Your task to perform on an android device: turn smart compose on in the gmail app Image 0: 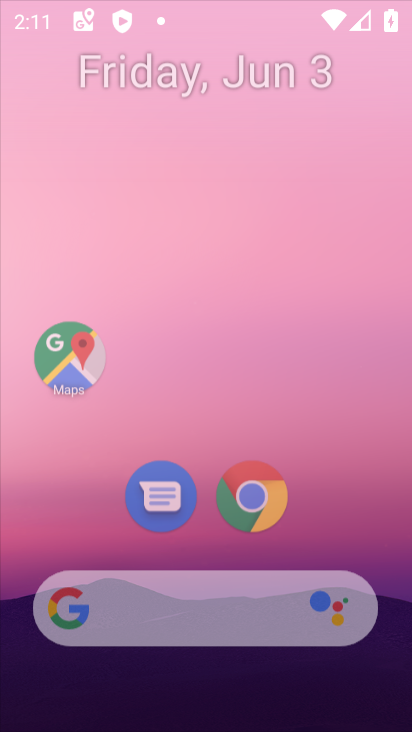
Step 0: click (142, 25)
Your task to perform on an android device: turn smart compose on in the gmail app Image 1: 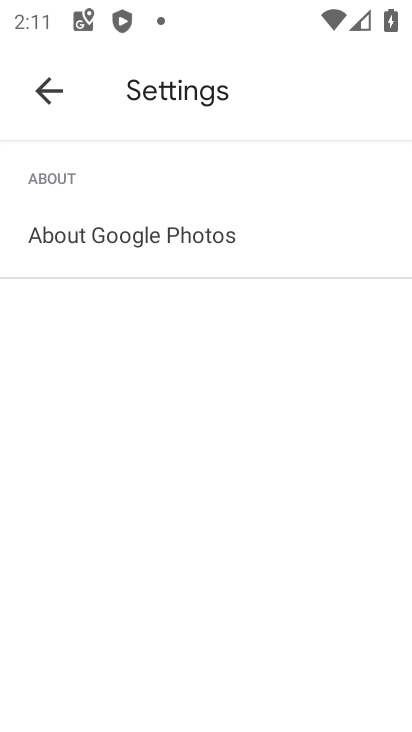
Step 1: click (33, 84)
Your task to perform on an android device: turn smart compose on in the gmail app Image 2: 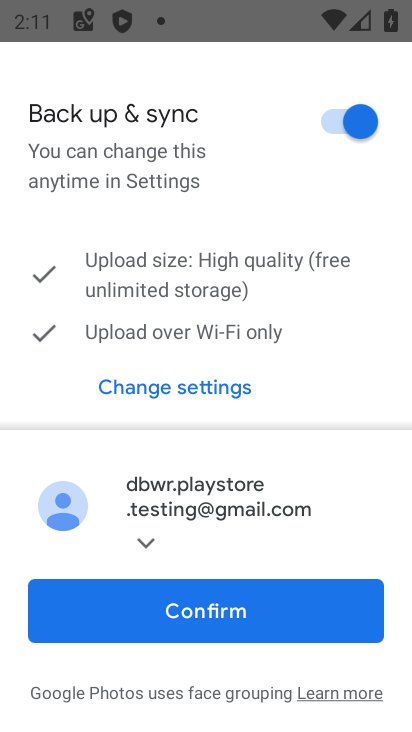
Step 2: press home button
Your task to perform on an android device: turn smart compose on in the gmail app Image 3: 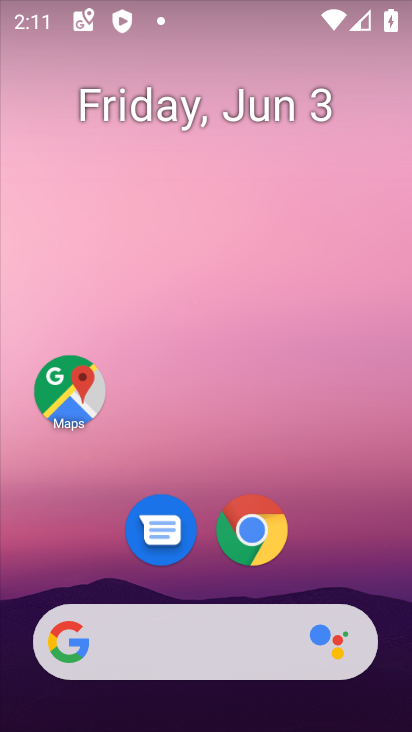
Step 3: drag from (331, 521) to (270, 166)
Your task to perform on an android device: turn smart compose on in the gmail app Image 4: 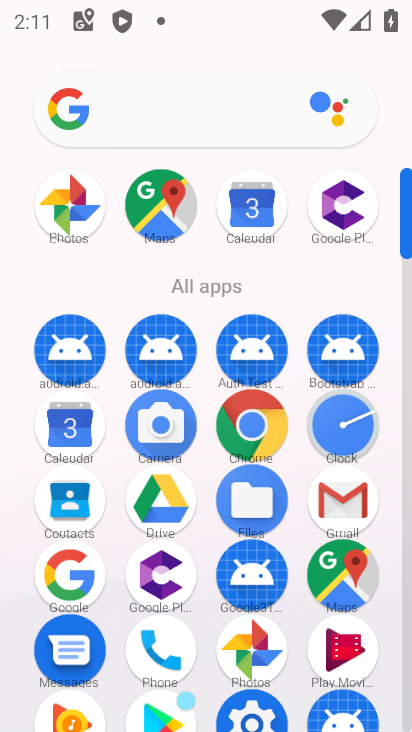
Step 4: drag from (204, 599) to (198, 354)
Your task to perform on an android device: turn smart compose on in the gmail app Image 5: 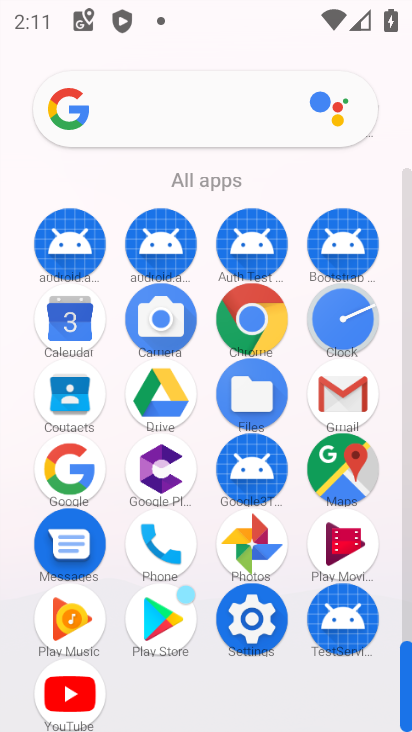
Step 5: click (326, 395)
Your task to perform on an android device: turn smart compose on in the gmail app Image 6: 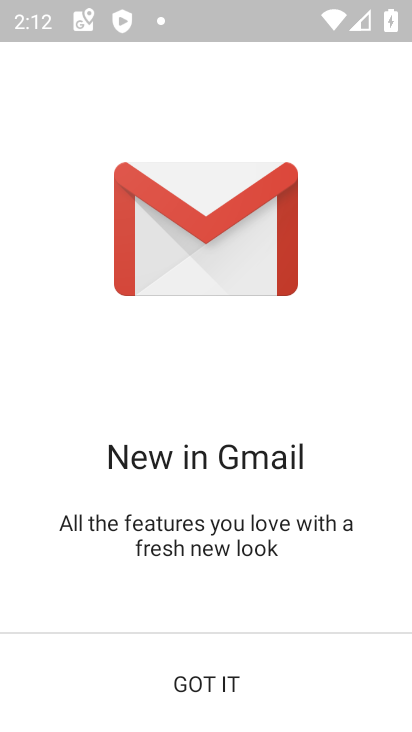
Step 6: click (213, 678)
Your task to perform on an android device: turn smart compose on in the gmail app Image 7: 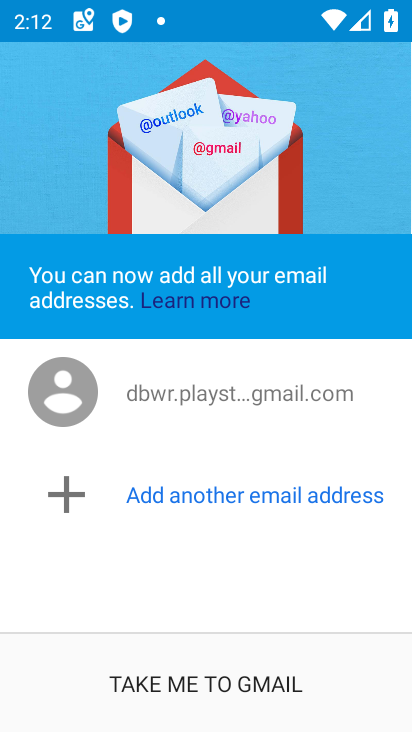
Step 7: click (217, 685)
Your task to perform on an android device: turn smart compose on in the gmail app Image 8: 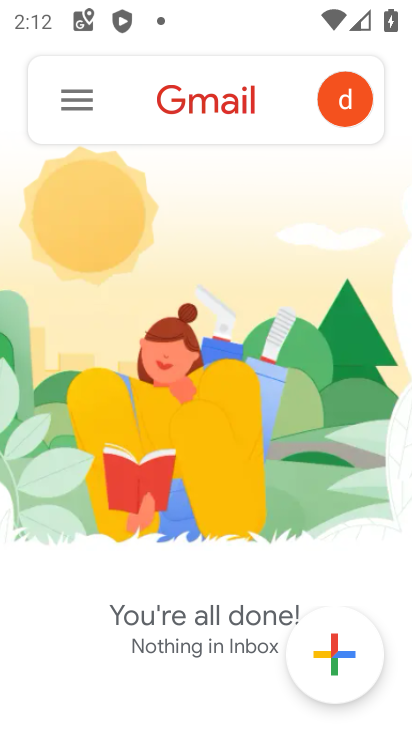
Step 8: click (77, 99)
Your task to perform on an android device: turn smart compose on in the gmail app Image 9: 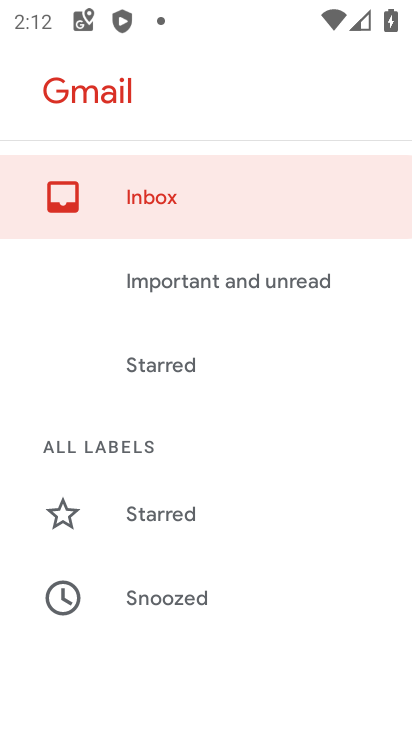
Step 9: drag from (266, 539) to (241, 296)
Your task to perform on an android device: turn smart compose on in the gmail app Image 10: 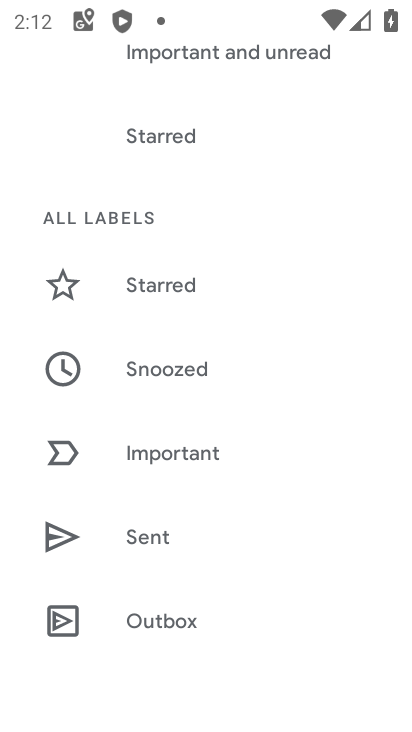
Step 10: drag from (272, 573) to (269, 281)
Your task to perform on an android device: turn smart compose on in the gmail app Image 11: 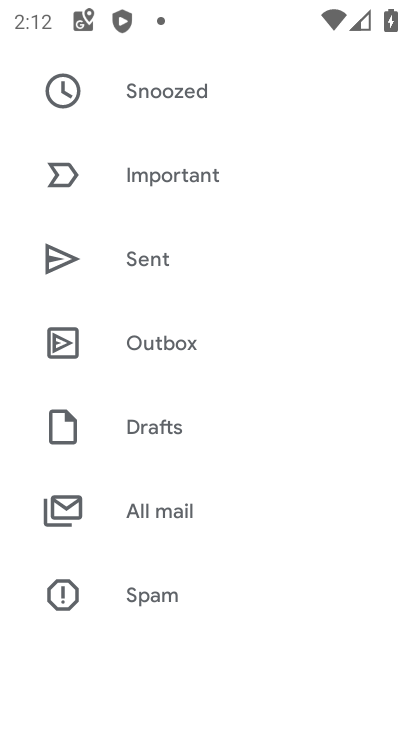
Step 11: drag from (246, 489) to (252, 159)
Your task to perform on an android device: turn smart compose on in the gmail app Image 12: 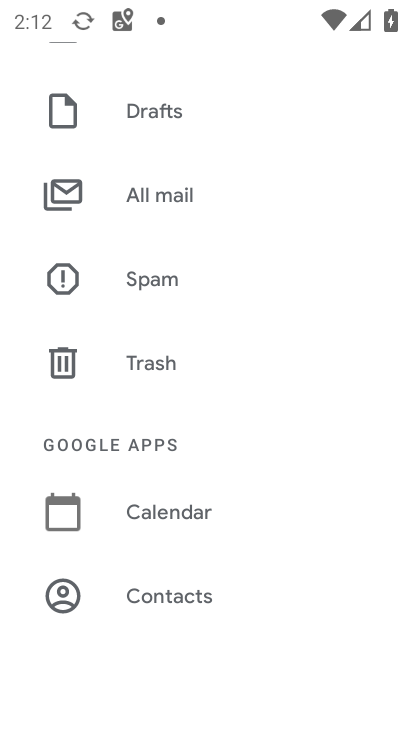
Step 12: drag from (238, 523) to (234, 238)
Your task to perform on an android device: turn smart compose on in the gmail app Image 13: 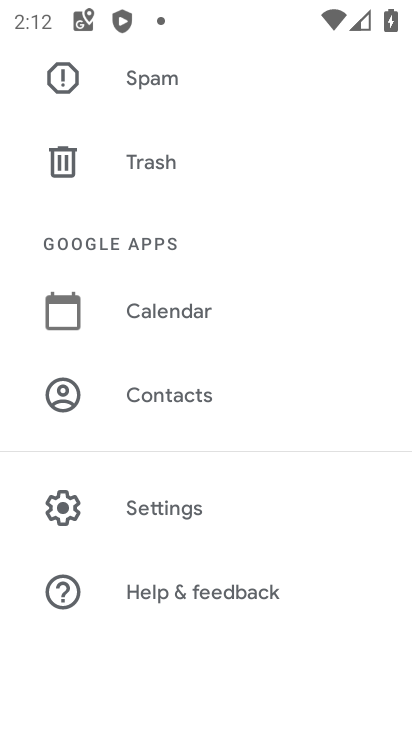
Step 13: click (166, 508)
Your task to perform on an android device: turn smart compose on in the gmail app Image 14: 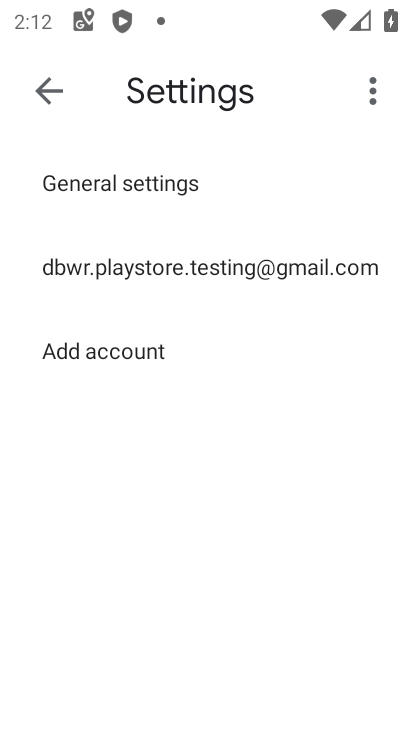
Step 14: click (151, 261)
Your task to perform on an android device: turn smart compose on in the gmail app Image 15: 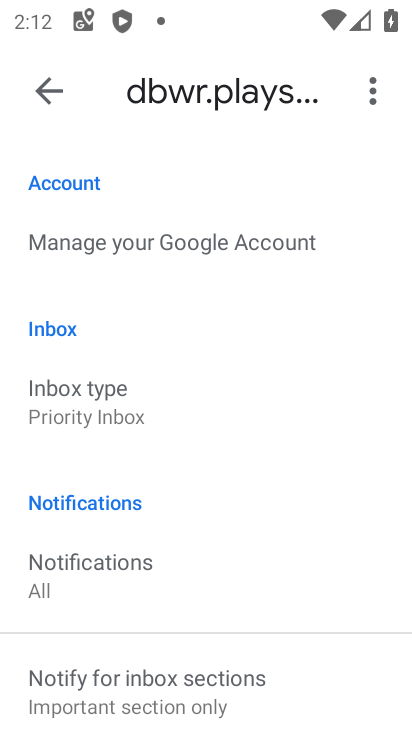
Step 15: task complete